Your task to perform on an android device: Is it going to rain today? Image 0: 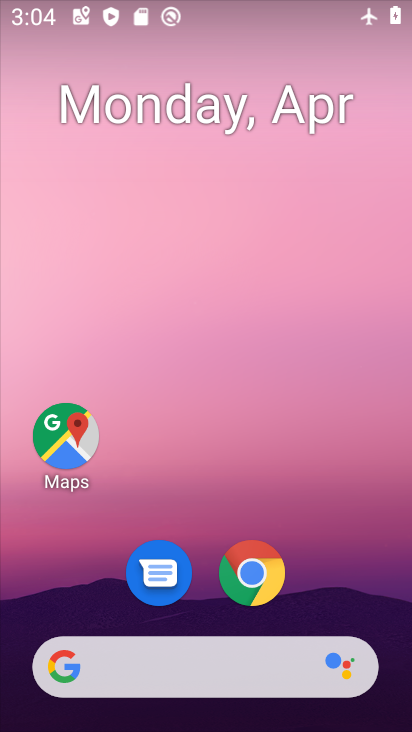
Step 0: click (228, 669)
Your task to perform on an android device: Is it going to rain today? Image 1: 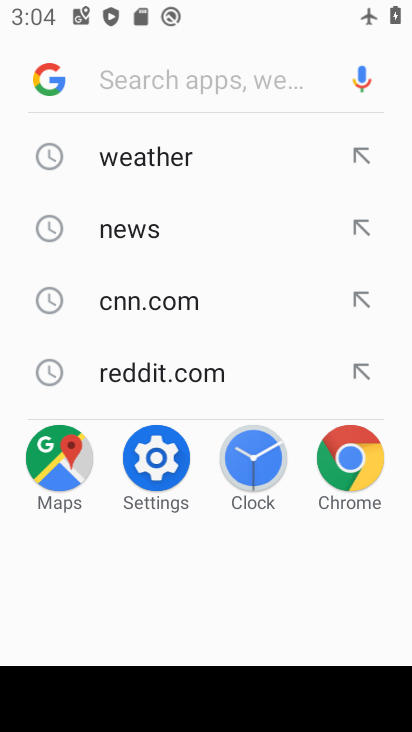
Step 1: click (163, 149)
Your task to perform on an android device: Is it going to rain today? Image 2: 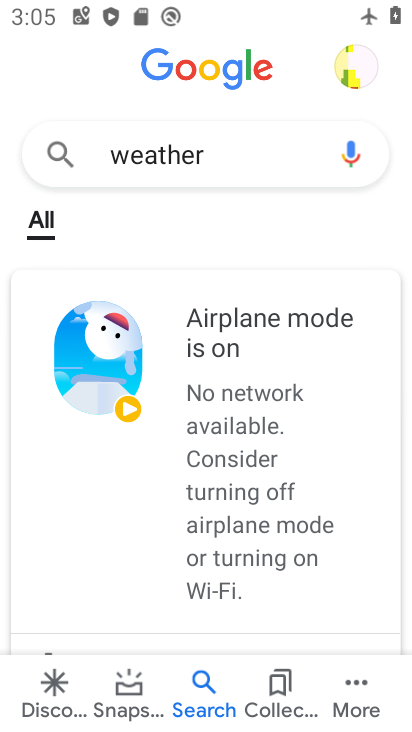
Step 2: task complete